Your task to perform on an android device: see creations saved in the google photos Image 0: 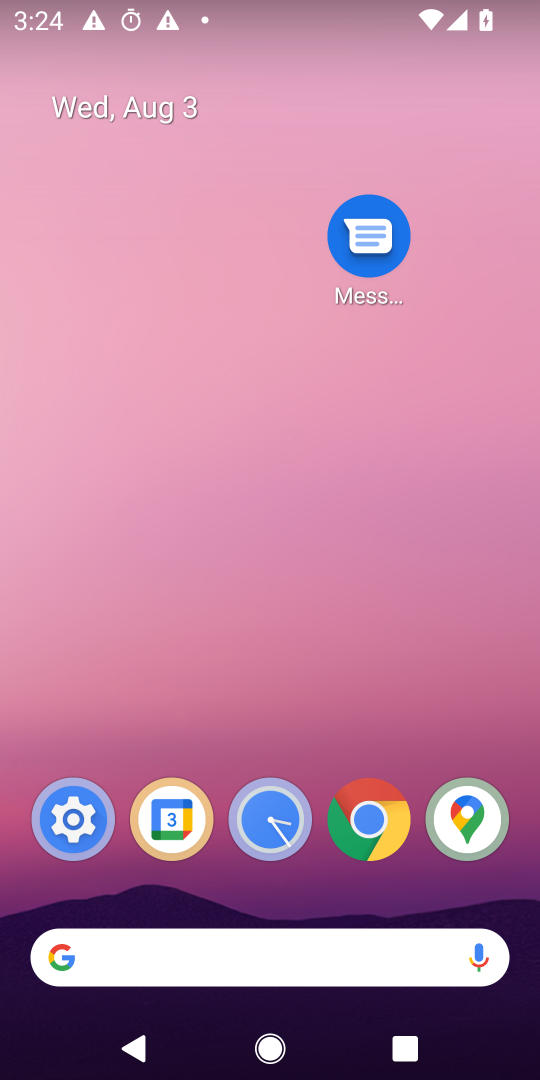
Step 0: drag from (72, 1021) to (317, 286)
Your task to perform on an android device: see creations saved in the google photos Image 1: 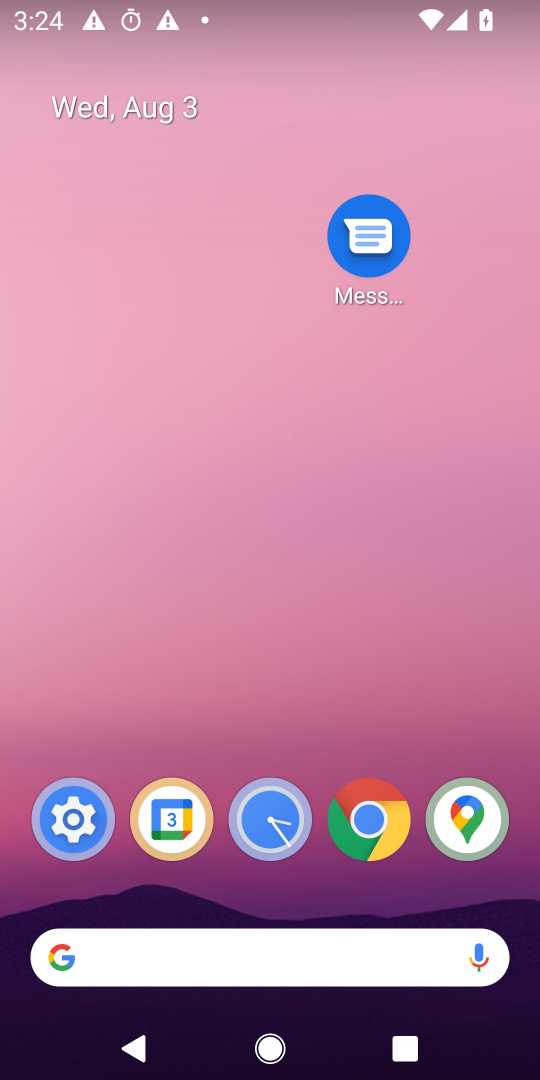
Step 1: drag from (98, 967) to (352, 66)
Your task to perform on an android device: see creations saved in the google photos Image 2: 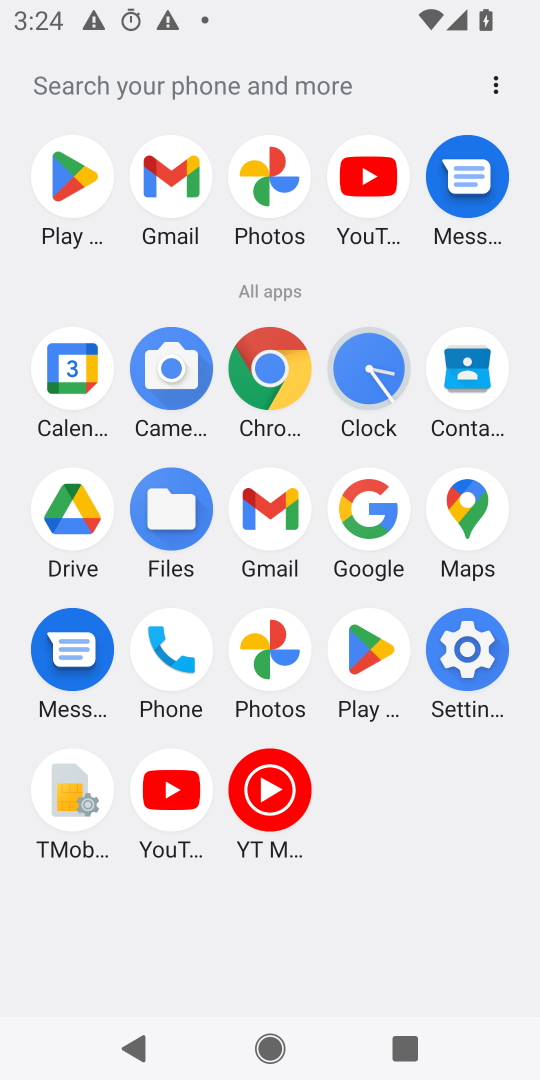
Step 2: click (265, 670)
Your task to perform on an android device: see creations saved in the google photos Image 3: 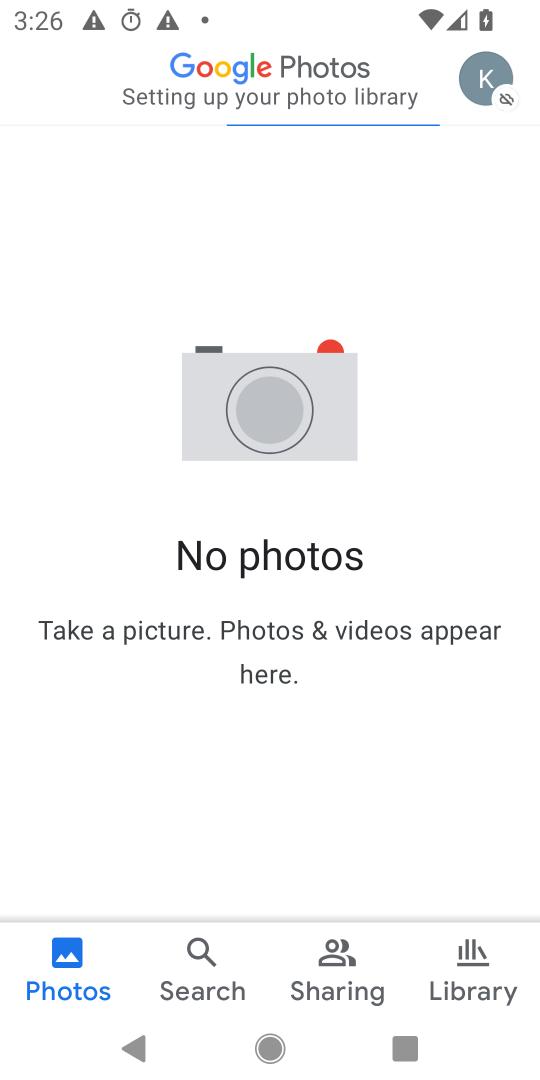
Step 3: task complete